Your task to perform on an android device: Go to display settings Image 0: 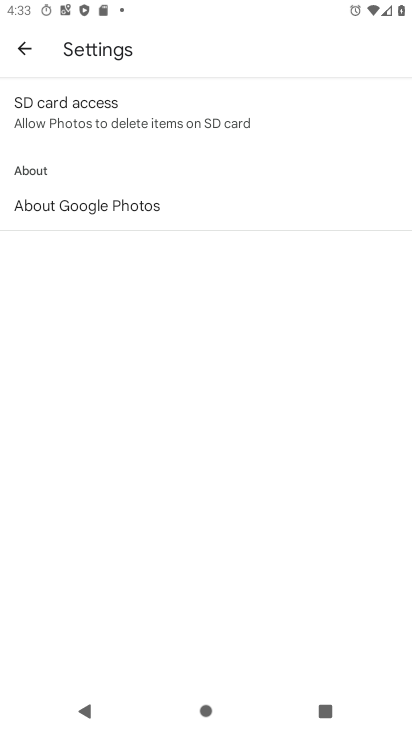
Step 0: press back button
Your task to perform on an android device: Go to display settings Image 1: 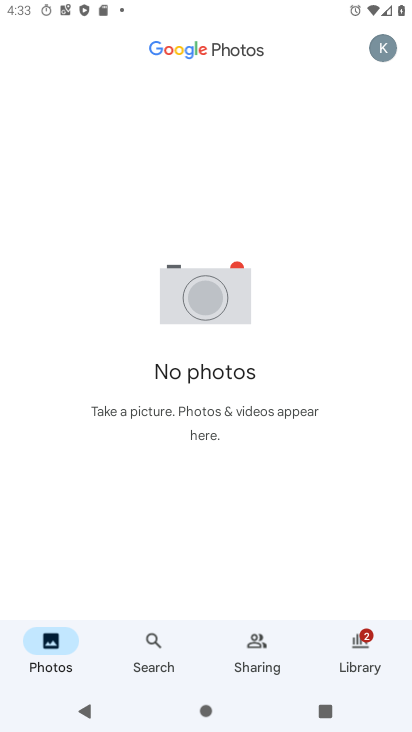
Step 1: press home button
Your task to perform on an android device: Go to display settings Image 2: 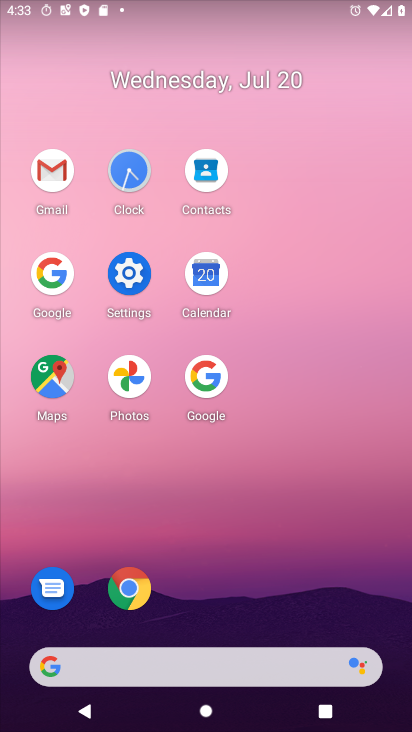
Step 2: click (114, 264)
Your task to perform on an android device: Go to display settings Image 3: 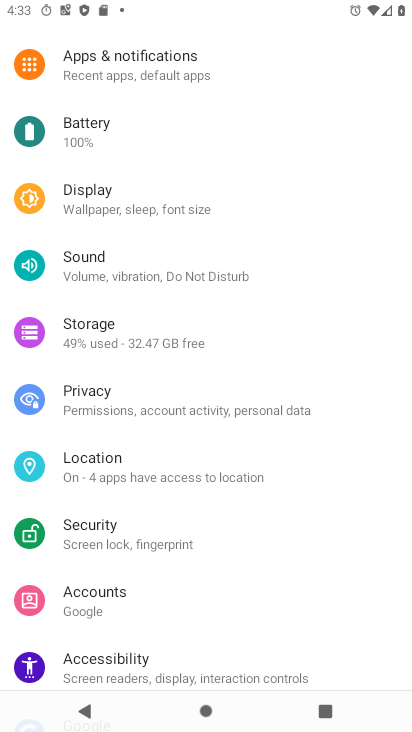
Step 3: click (131, 211)
Your task to perform on an android device: Go to display settings Image 4: 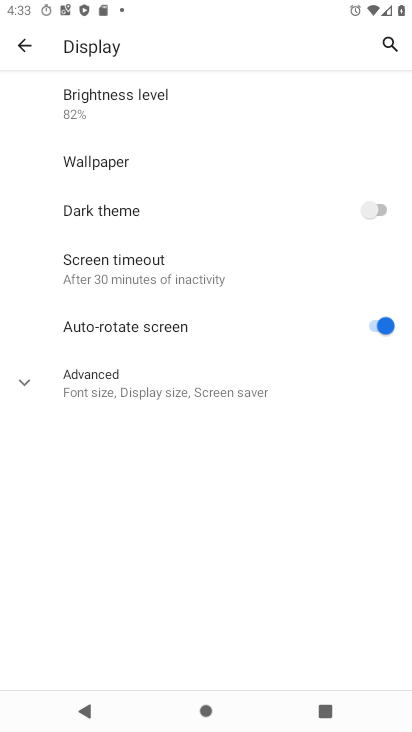
Step 4: task complete